Your task to perform on an android device: Turn on the flashlight Image 0: 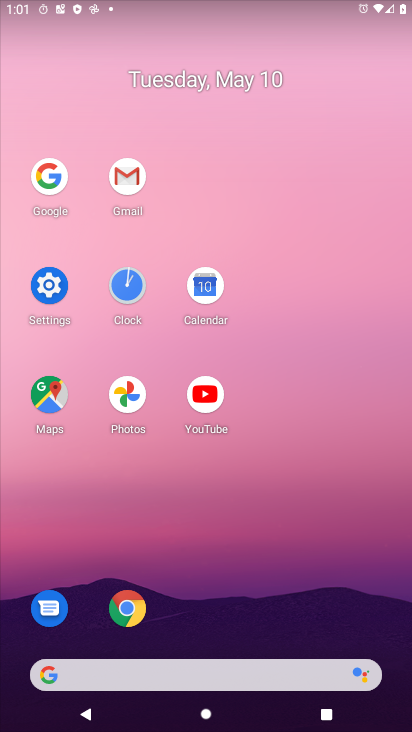
Step 0: drag from (235, 319) to (220, 471)
Your task to perform on an android device: Turn on the flashlight Image 1: 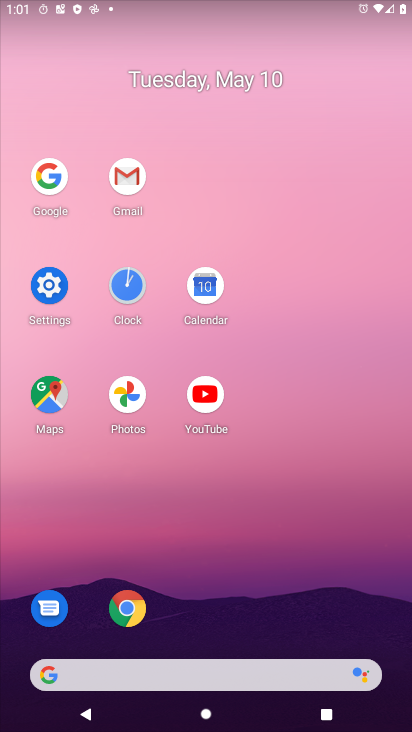
Step 1: task complete